Your task to perform on an android device: visit the assistant section in the google photos Image 0: 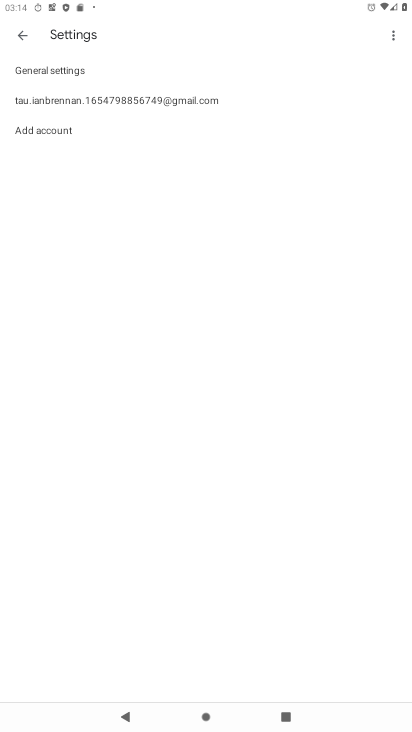
Step 0: press home button
Your task to perform on an android device: visit the assistant section in the google photos Image 1: 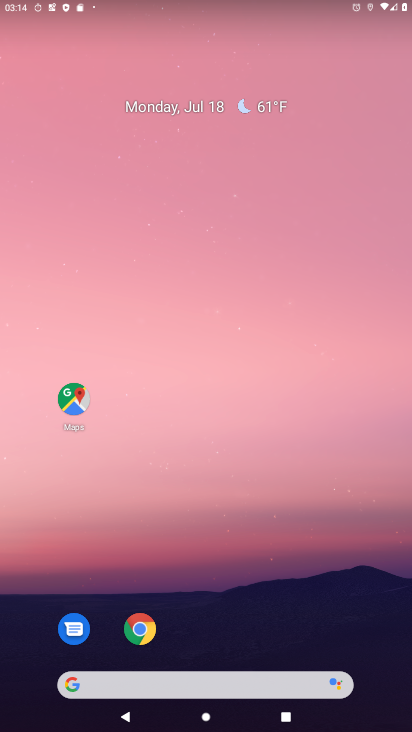
Step 1: drag from (192, 685) to (220, 76)
Your task to perform on an android device: visit the assistant section in the google photos Image 2: 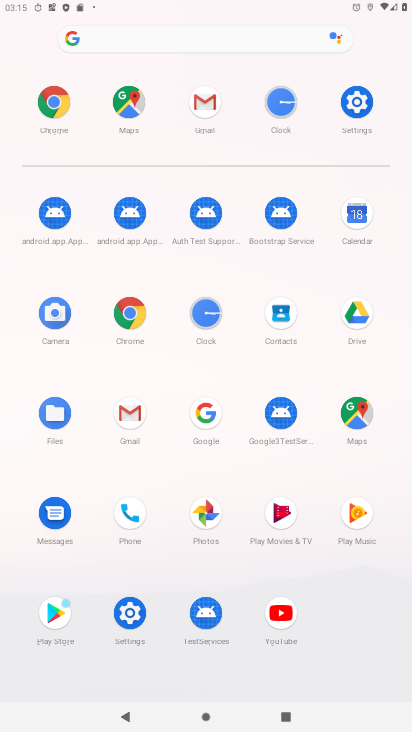
Step 2: click (207, 514)
Your task to perform on an android device: visit the assistant section in the google photos Image 3: 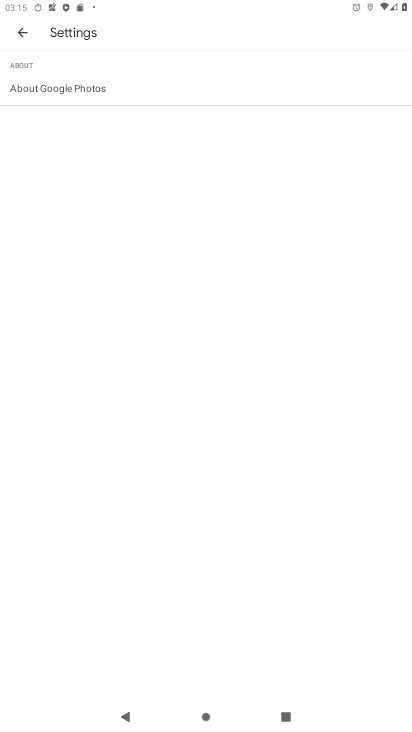
Step 3: press back button
Your task to perform on an android device: visit the assistant section in the google photos Image 4: 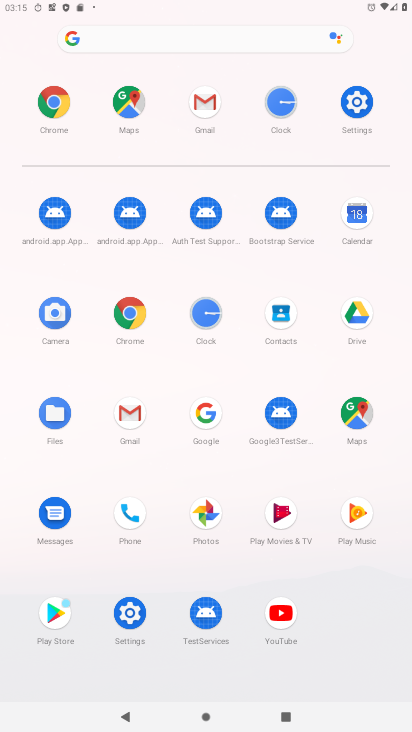
Step 4: click (204, 513)
Your task to perform on an android device: visit the assistant section in the google photos Image 5: 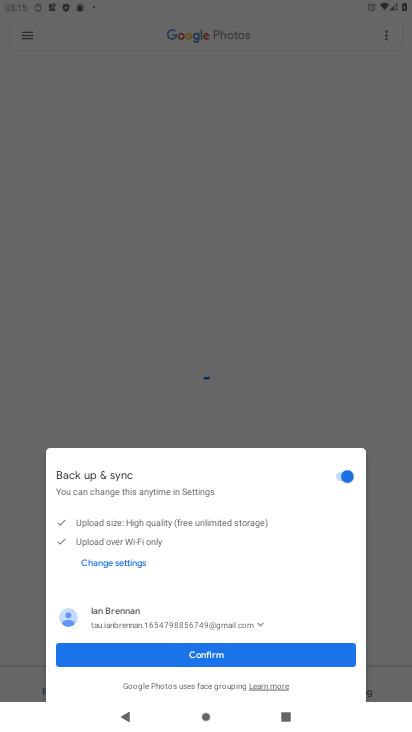
Step 5: click (201, 665)
Your task to perform on an android device: visit the assistant section in the google photos Image 6: 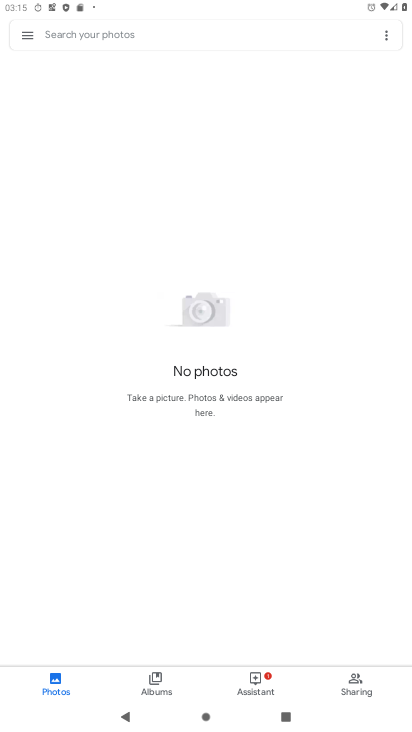
Step 6: click (258, 677)
Your task to perform on an android device: visit the assistant section in the google photos Image 7: 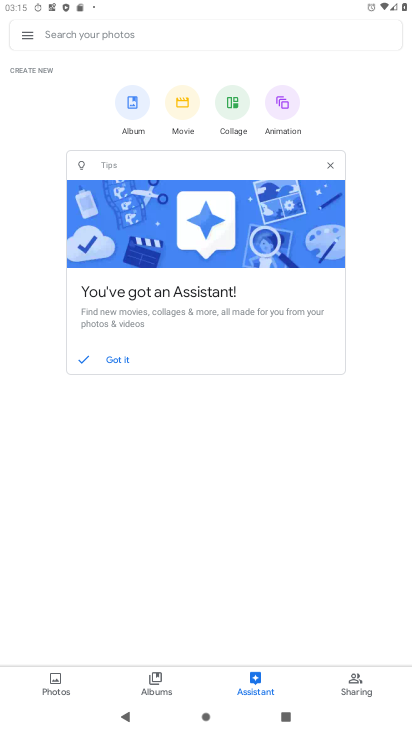
Step 7: task complete